Your task to perform on an android device: Go to calendar. Show me events next week Image 0: 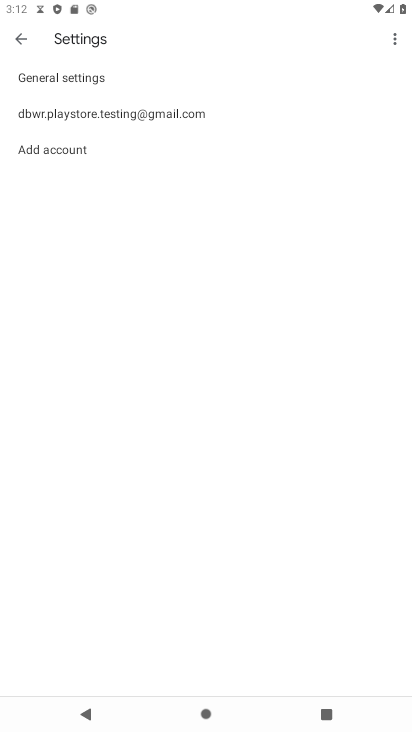
Step 0: press home button
Your task to perform on an android device: Go to calendar. Show me events next week Image 1: 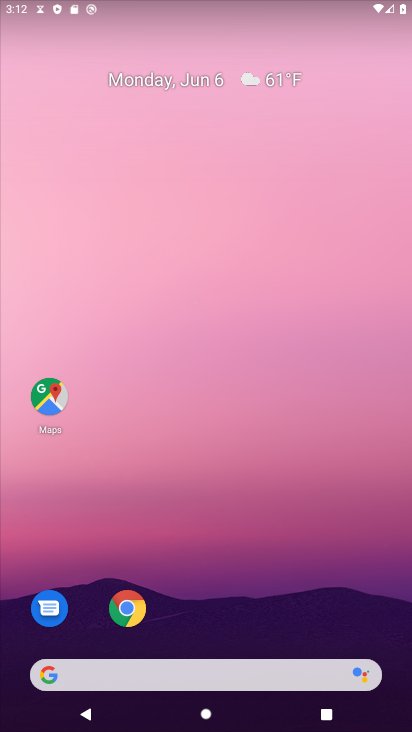
Step 1: drag from (306, 614) to (295, 78)
Your task to perform on an android device: Go to calendar. Show me events next week Image 2: 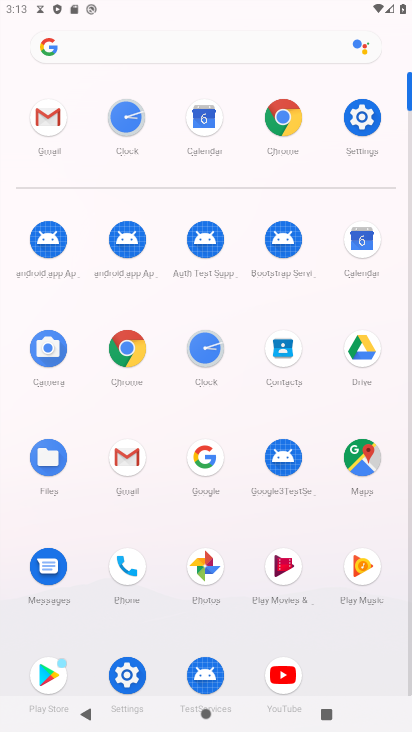
Step 2: click (371, 249)
Your task to perform on an android device: Go to calendar. Show me events next week Image 3: 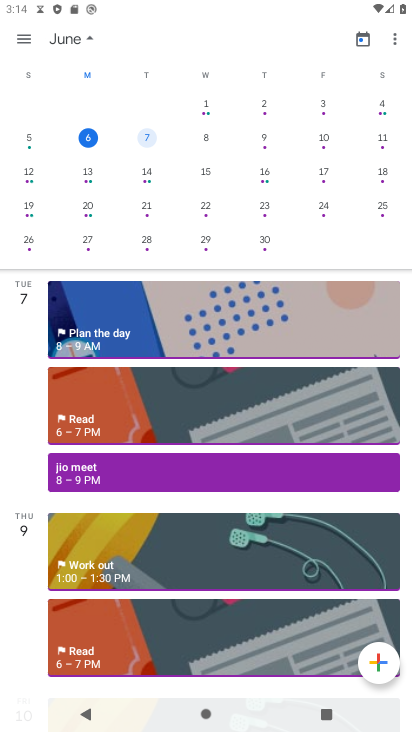
Step 3: click (42, 179)
Your task to perform on an android device: Go to calendar. Show me events next week Image 4: 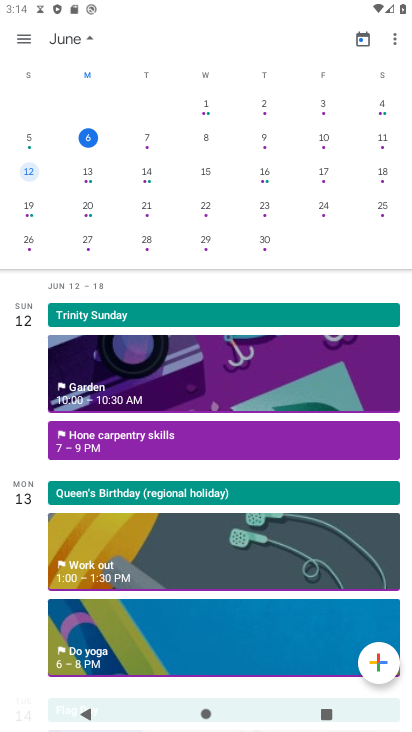
Step 4: task complete